Your task to perform on an android device: delete browsing data in the chrome app Image 0: 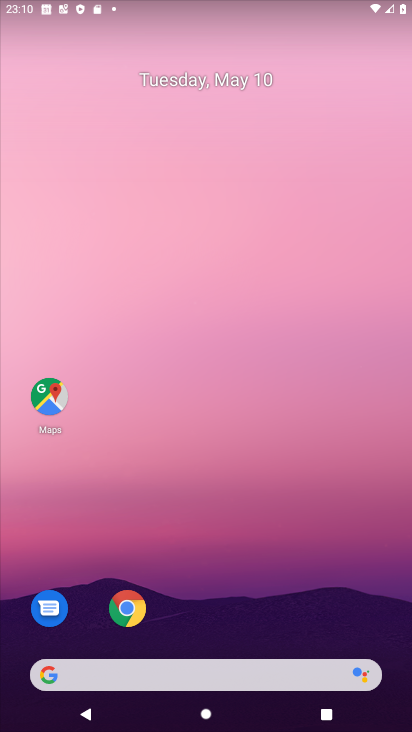
Step 0: drag from (237, 564) to (234, 313)
Your task to perform on an android device: delete browsing data in the chrome app Image 1: 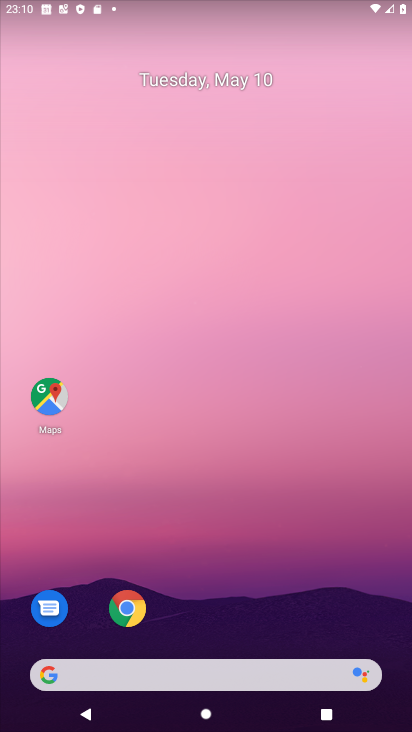
Step 1: drag from (250, 601) to (231, 306)
Your task to perform on an android device: delete browsing data in the chrome app Image 2: 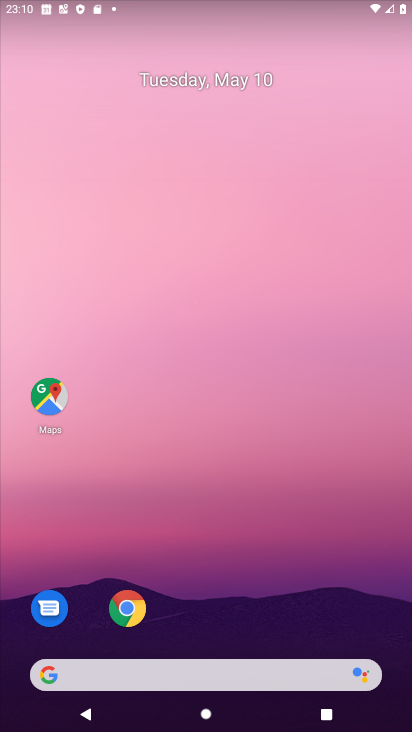
Step 2: drag from (257, 624) to (236, 237)
Your task to perform on an android device: delete browsing data in the chrome app Image 3: 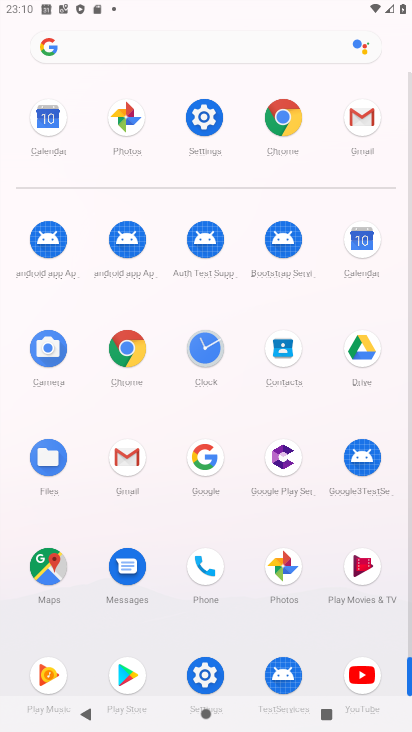
Step 3: click (281, 108)
Your task to perform on an android device: delete browsing data in the chrome app Image 4: 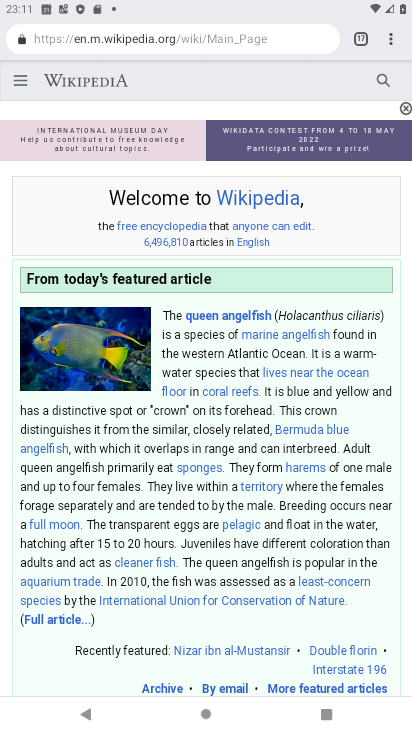
Step 4: click (382, 39)
Your task to perform on an android device: delete browsing data in the chrome app Image 5: 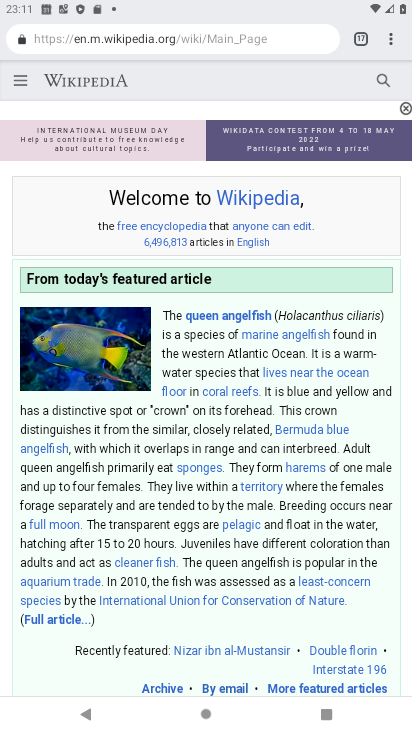
Step 5: click (375, 36)
Your task to perform on an android device: delete browsing data in the chrome app Image 6: 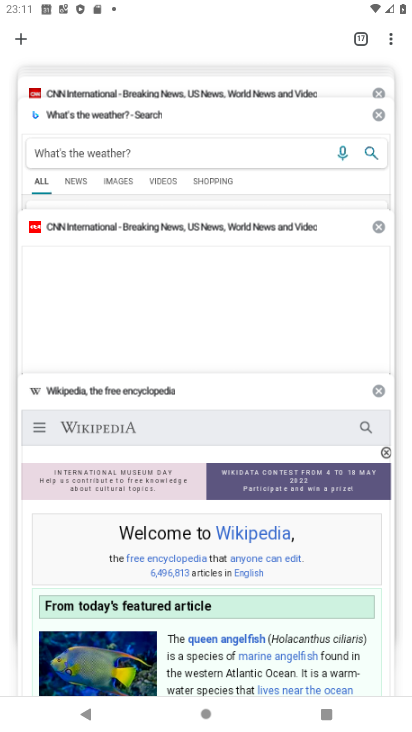
Step 6: click (381, 33)
Your task to perform on an android device: delete browsing data in the chrome app Image 7: 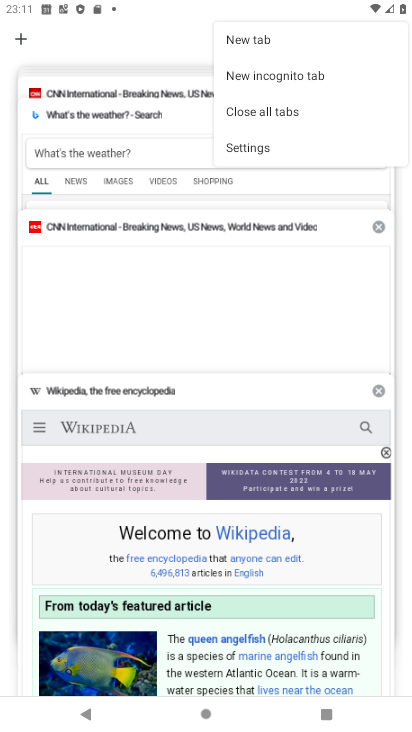
Step 7: click (252, 150)
Your task to perform on an android device: delete browsing data in the chrome app Image 8: 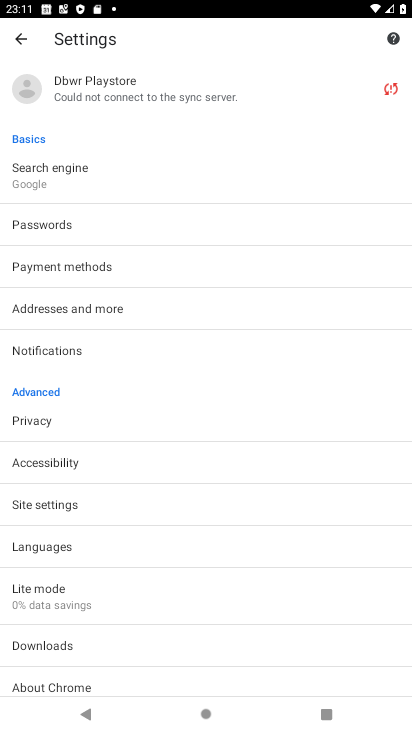
Step 8: press home button
Your task to perform on an android device: delete browsing data in the chrome app Image 9: 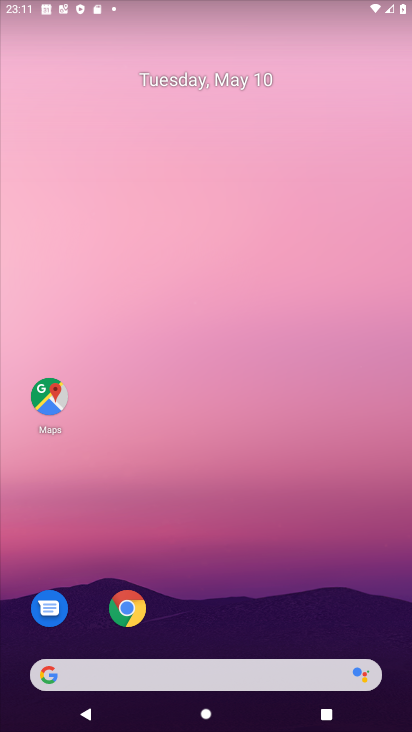
Step 9: drag from (214, 613) to (251, 194)
Your task to perform on an android device: delete browsing data in the chrome app Image 10: 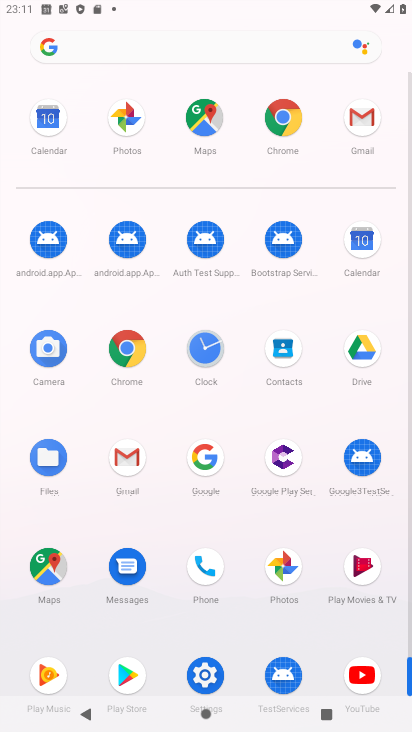
Step 10: click (282, 115)
Your task to perform on an android device: delete browsing data in the chrome app Image 11: 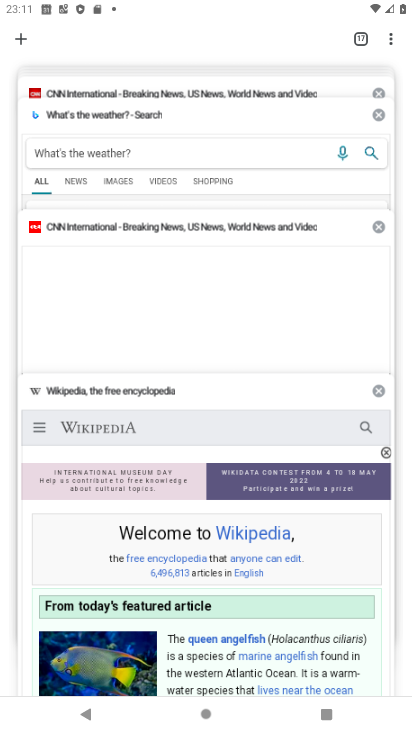
Step 11: click (382, 39)
Your task to perform on an android device: delete browsing data in the chrome app Image 12: 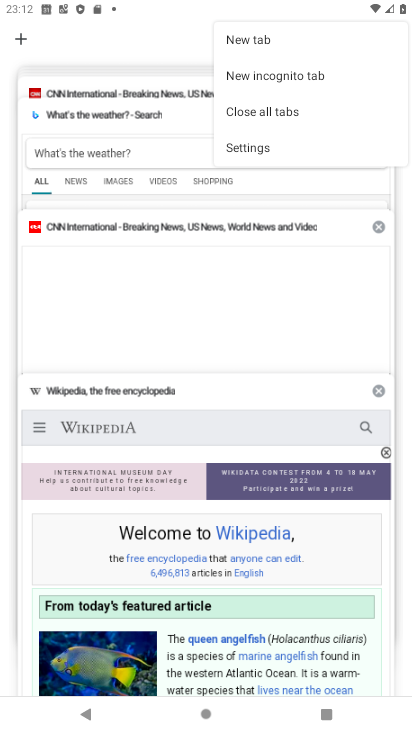
Step 12: click (252, 140)
Your task to perform on an android device: delete browsing data in the chrome app Image 13: 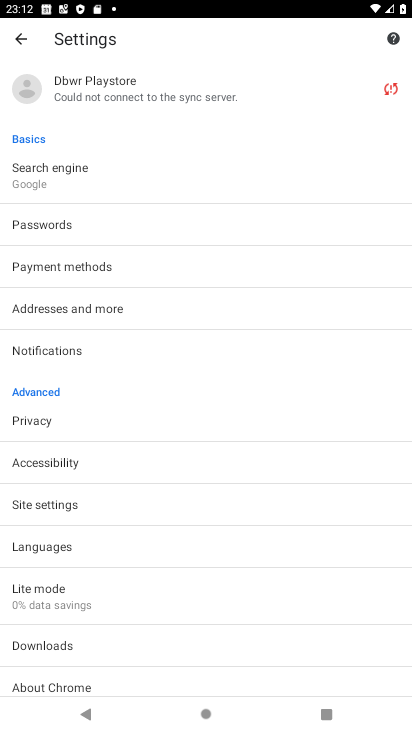
Step 13: press back button
Your task to perform on an android device: delete browsing data in the chrome app Image 14: 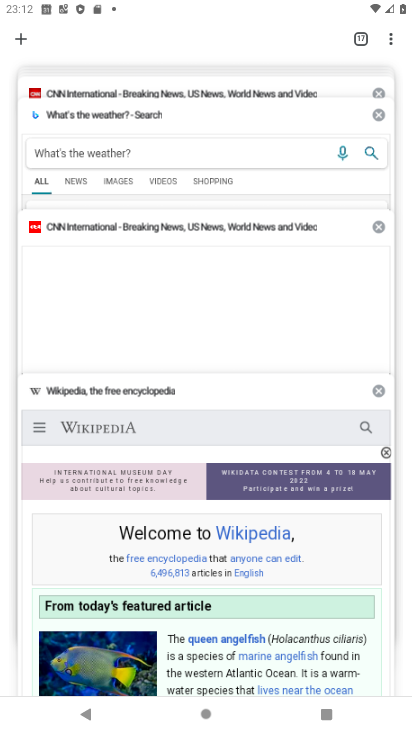
Step 14: click (13, 39)
Your task to perform on an android device: delete browsing data in the chrome app Image 15: 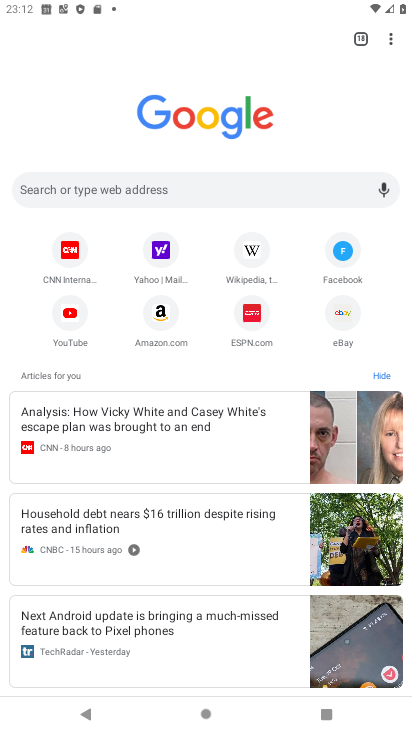
Step 15: click (379, 28)
Your task to perform on an android device: delete browsing data in the chrome app Image 16: 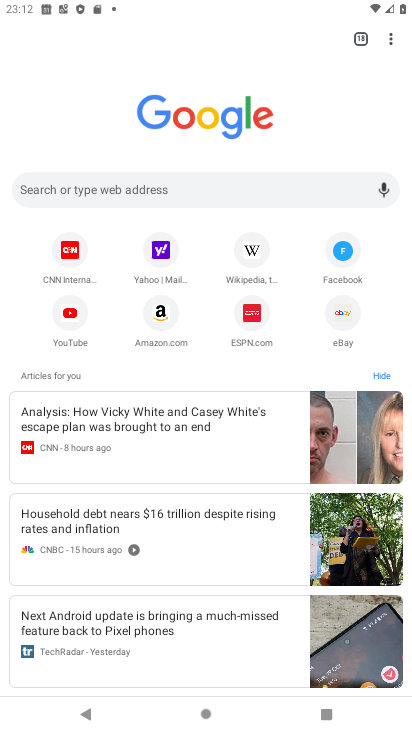
Step 16: click (377, 29)
Your task to perform on an android device: delete browsing data in the chrome app Image 17: 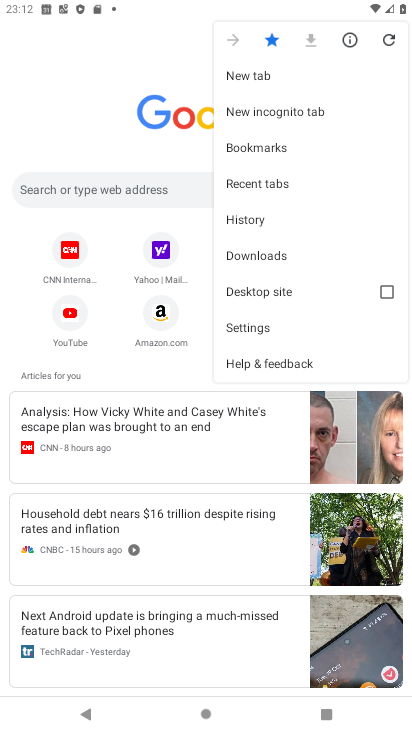
Step 17: click (256, 220)
Your task to perform on an android device: delete browsing data in the chrome app Image 18: 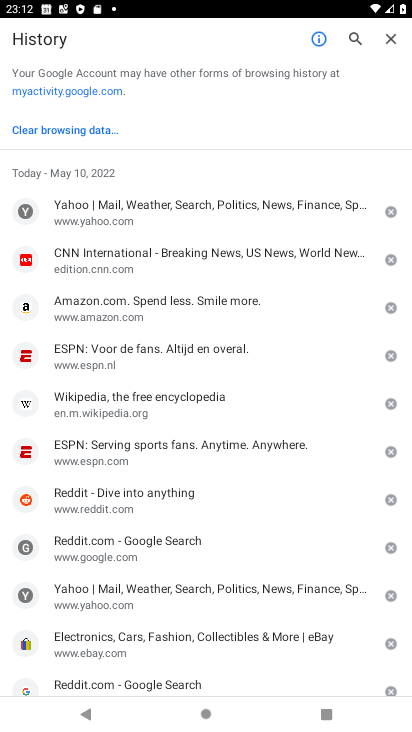
Step 18: click (61, 130)
Your task to perform on an android device: delete browsing data in the chrome app Image 19: 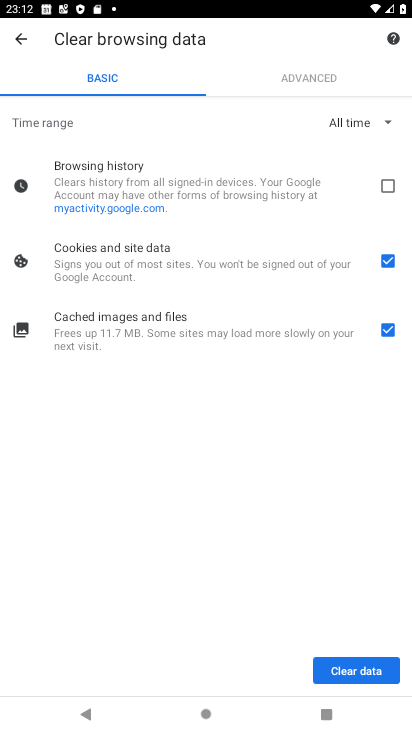
Step 19: click (373, 176)
Your task to perform on an android device: delete browsing data in the chrome app Image 20: 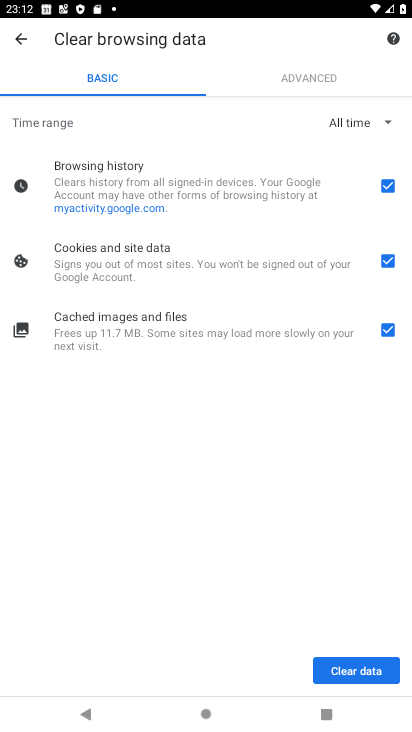
Step 20: click (364, 664)
Your task to perform on an android device: delete browsing data in the chrome app Image 21: 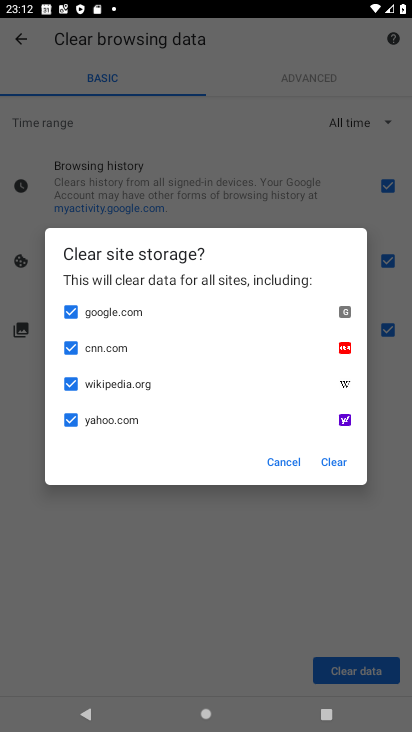
Step 21: click (335, 464)
Your task to perform on an android device: delete browsing data in the chrome app Image 22: 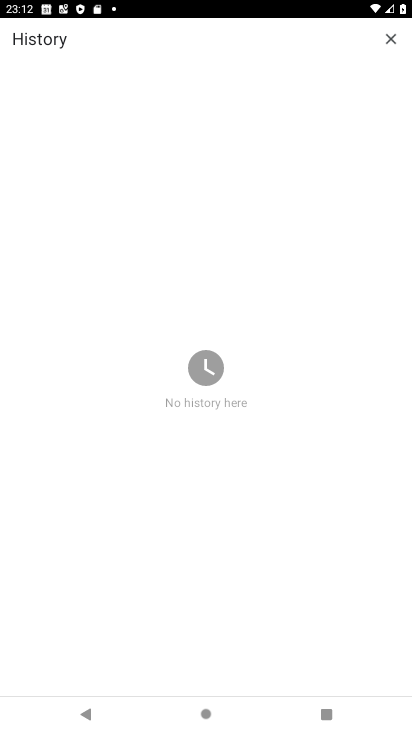
Step 22: task complete